Your task to perform on an android device: toggle location history Image 0: 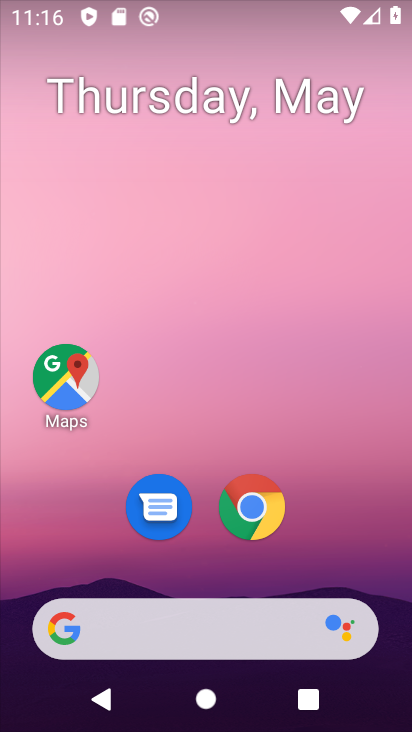
Step 0: drag from (226, 601) to (218, 152)
Your task to perform on an android device: toggle location history Image 1: 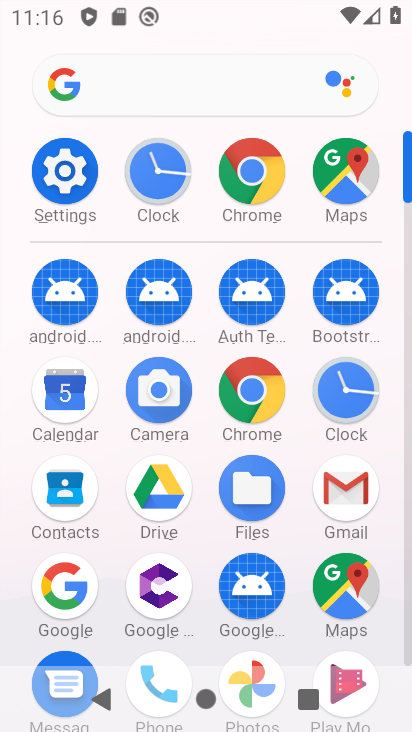
Step 1: click (72, 177)
Your task to perform on an android device: toggle location history Image 2: 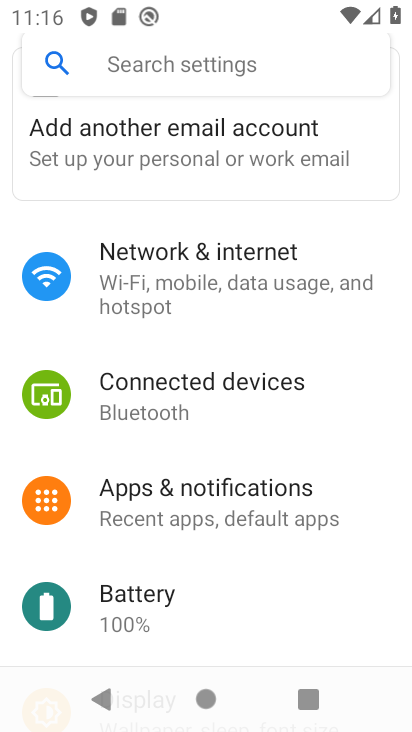
Step 2: drag from (203, 599) to (299, 279)
Your task to perform on an android device: toggle location history Image 3: 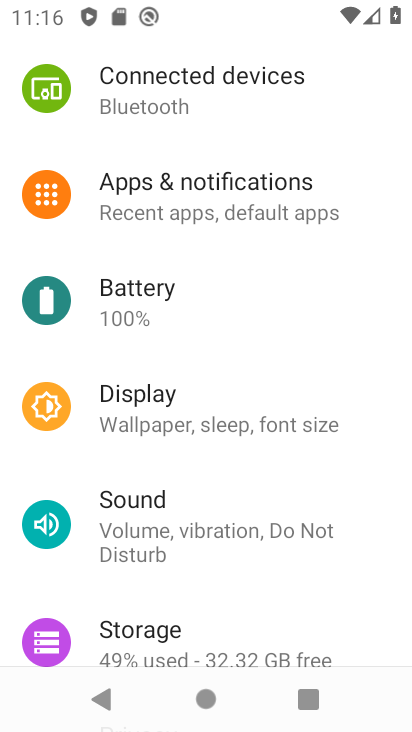
Step 3: drag from (246, 569) to (276, 257)
Your task to perform on an android device: toggle location history Image 4: 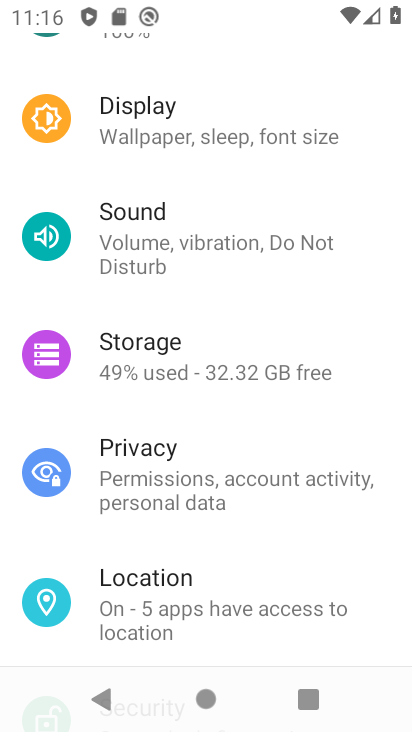
Step 4: click (245, 589)
Your task to perform on an android device: toggle location history Image 5: 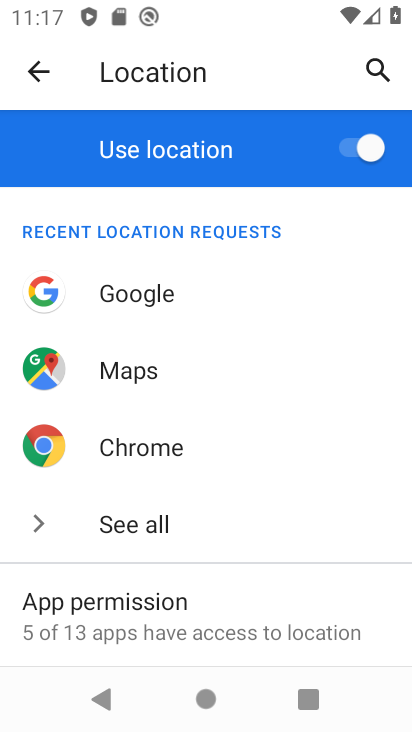
Step 5: drag from (239, 607) to (296, 296)
Your task to perform on an android device: toggle location history Image 6: 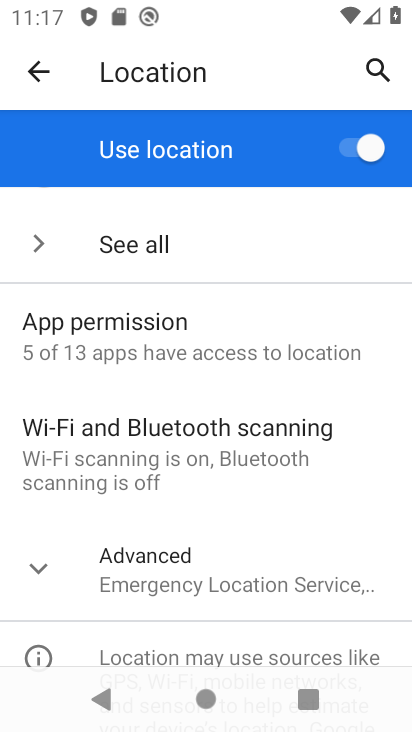
Step 6: drag from (234, 623) to (279, 454)
Your task to perform on an android device: toggle location history Image 7: 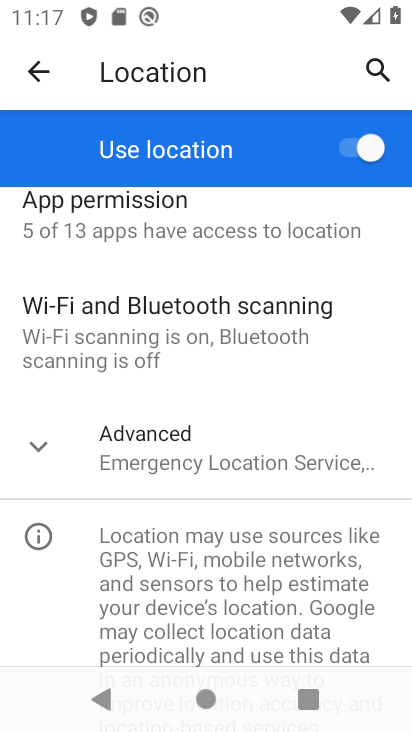
Step 7: click (277, 546)
Your task to perform on an android device: toggle location history Image 8: 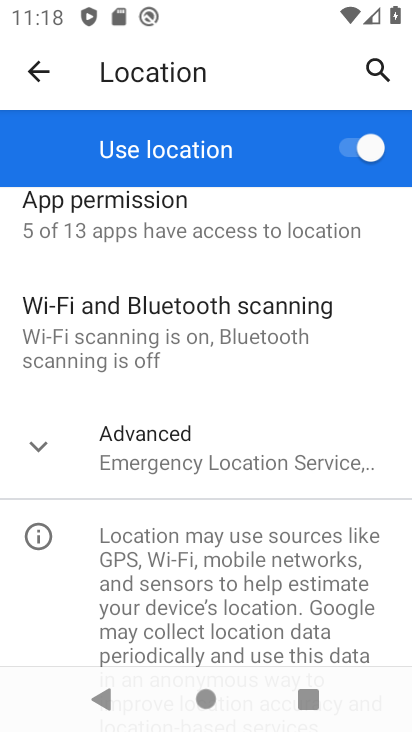
Step 8: click (219, 472)
Your task to perform on an android device: toggle location history Image 9: 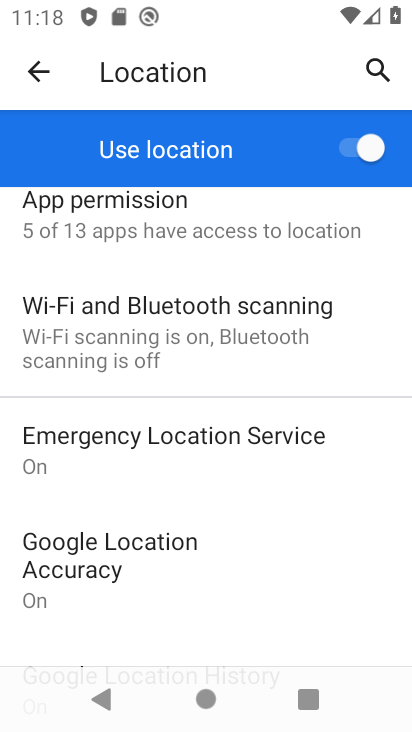
Step 9: drag from (232, 577) to (263, 233)
Your task to perform on an android device: toggle location history Image 10: 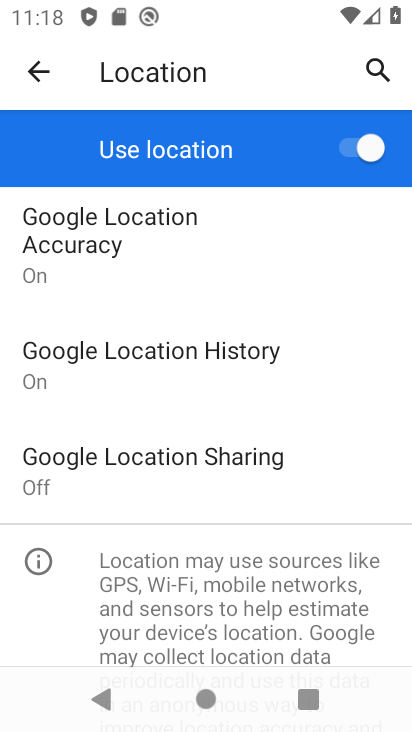
Step 10: click (309, 379)
Your task to perform on an android device: toggle location history Image 11: 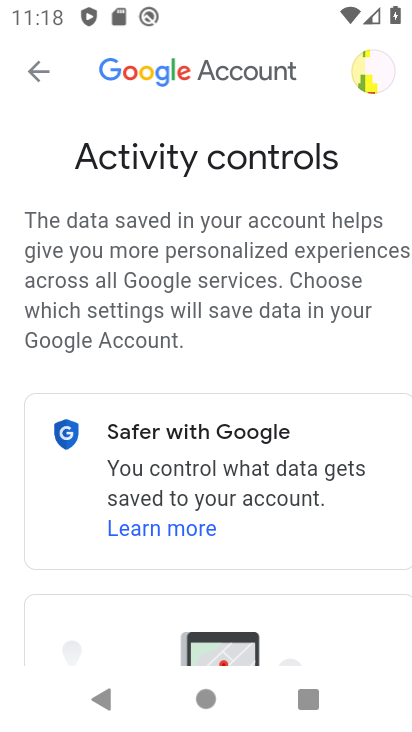
Step 11: drag from (267, 500) to (362, 36)
Your task to perform on an android device: toggle location history Image 12: 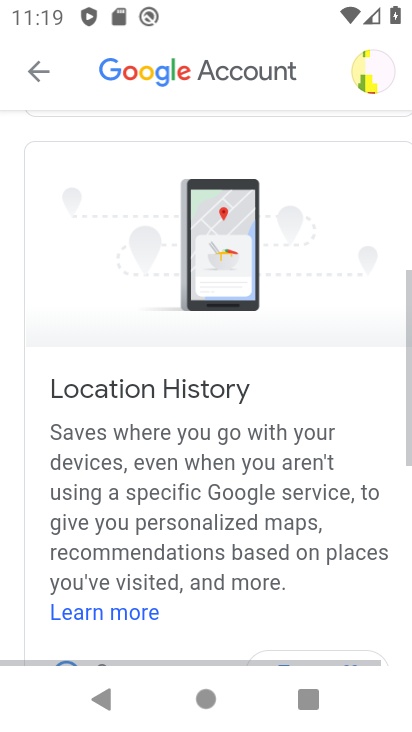
Step 12: drag from (206, 382) to (230, 75)
Your task to perform on an android device: toggle location history Image 13: 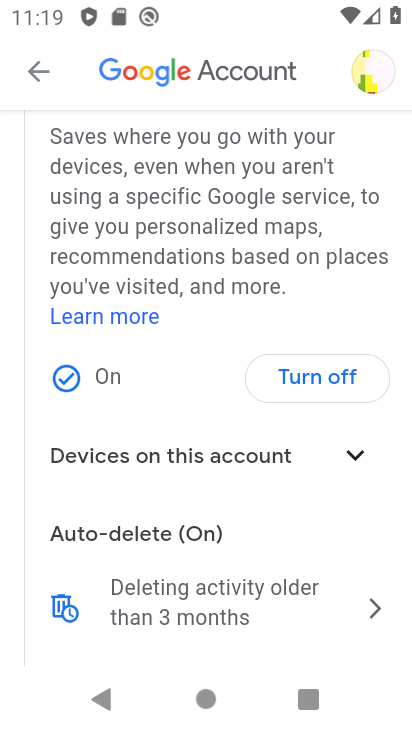
Step 13: click (325, 382)
Your task to perform on an android device: toggle location history Image 14: 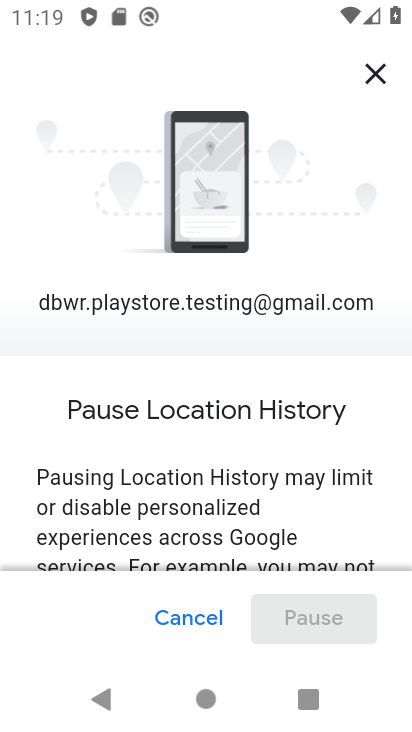
Step 14: drag from (158, 495) to (398, 217)
Your task to perform on an android device: toggle location history Image 15: 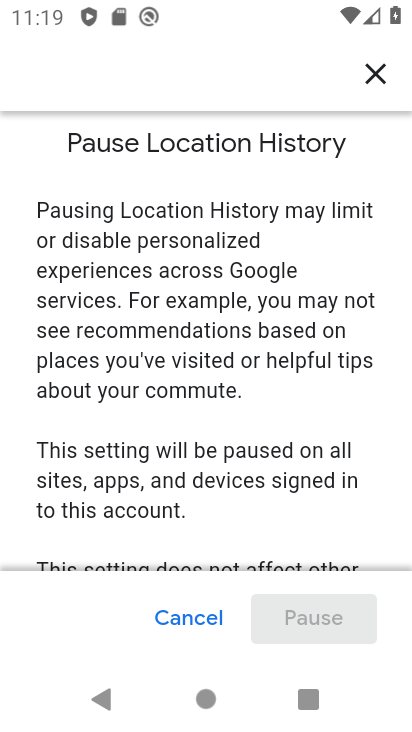
Step 15: drag from (254, 455) to (395, 11)
Your task to perform on an android device: toggle location history Image 16: 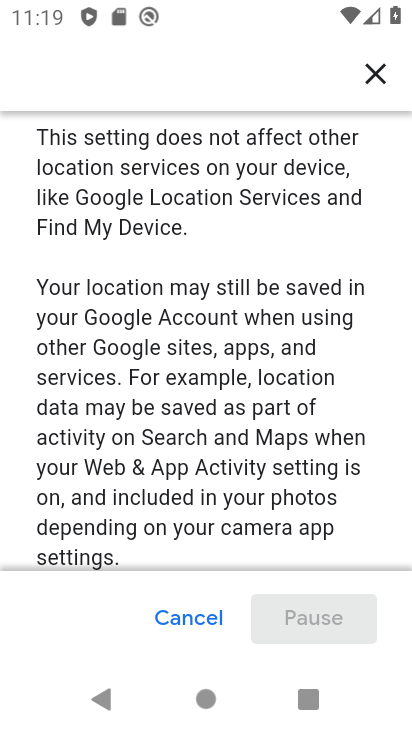
Step 16: drag from (288, 512) to (268, 14)
Your task to perform on an android device: toggle location history Image 17: 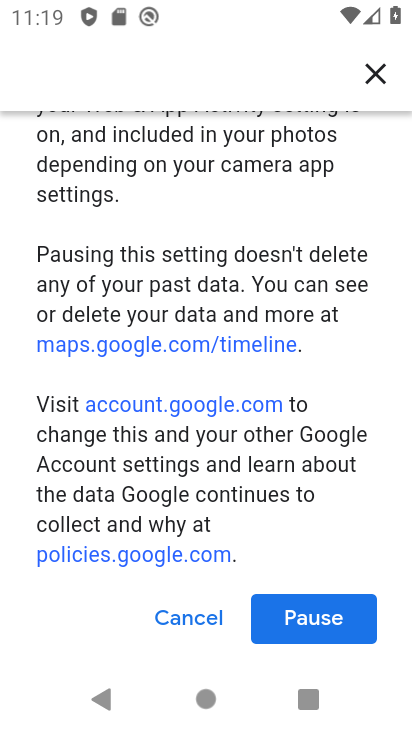
Step 17: click (280, 633)
Your task to perform on an android device: toggle location history Image 18: 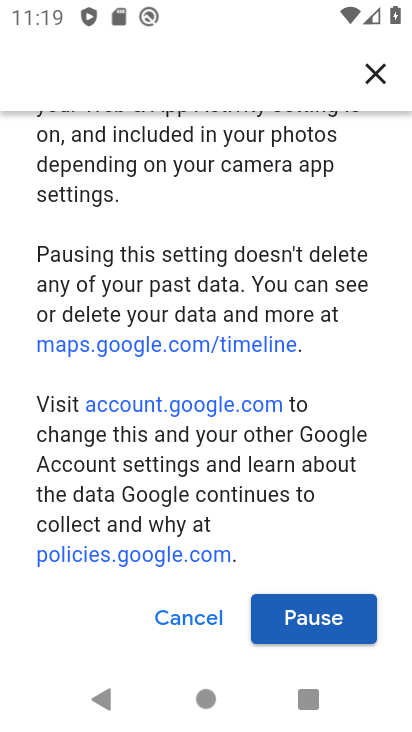
Step 18: click (296, 622)
Your task to perform on an android device: toggle location history Image 19: 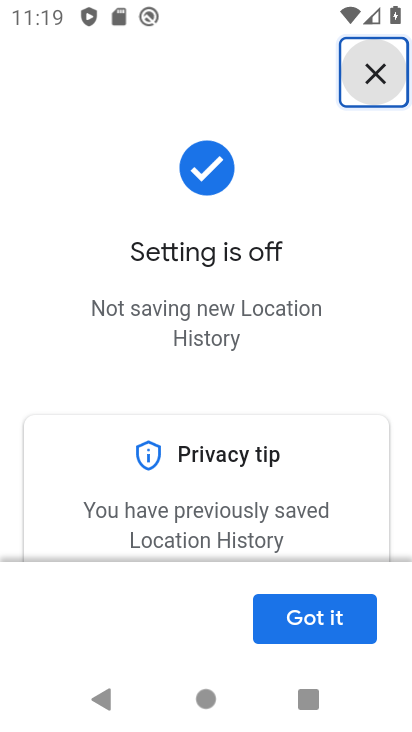
Step 19: click (337, 626)
Your task to perform on an android device: toggle location history Image 20: 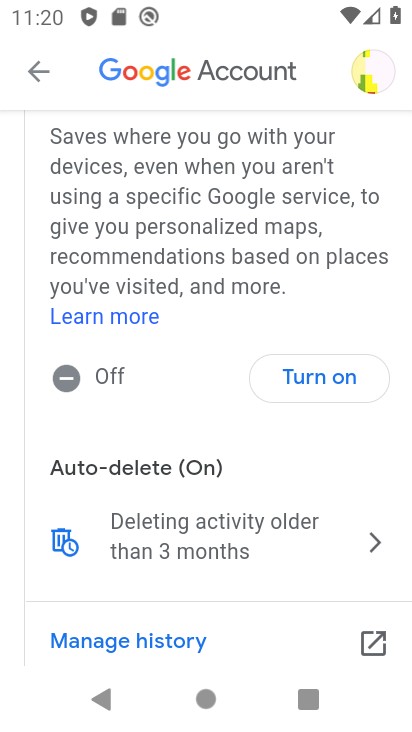
Step 20: task complete